Your task to perform on an android device: turn notification dots on Image 0: 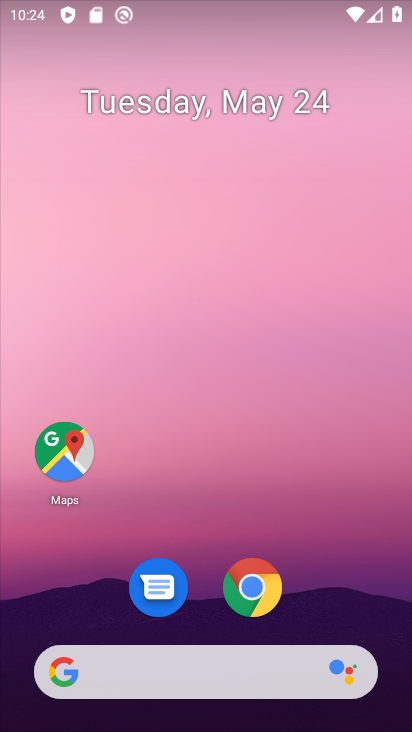
Step 0: drag from (325, 597) to (235, 0)
Your task to perform on an android device: turn notification dots on Image 1: 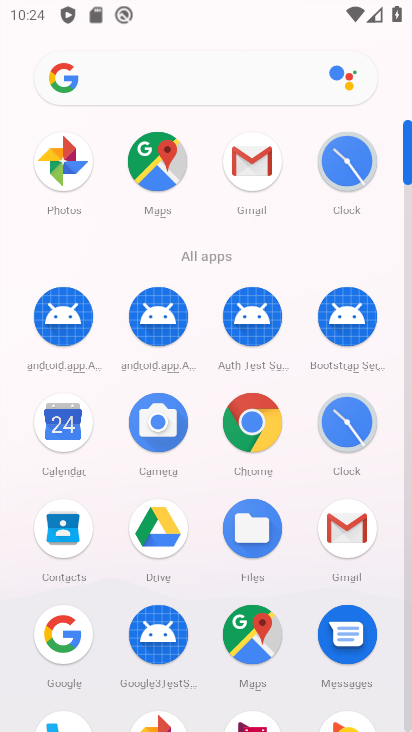
Step 1: drag from (7, 532) to (30, 222)
Your task to perform on an android device: turn notification dots on Image 2: 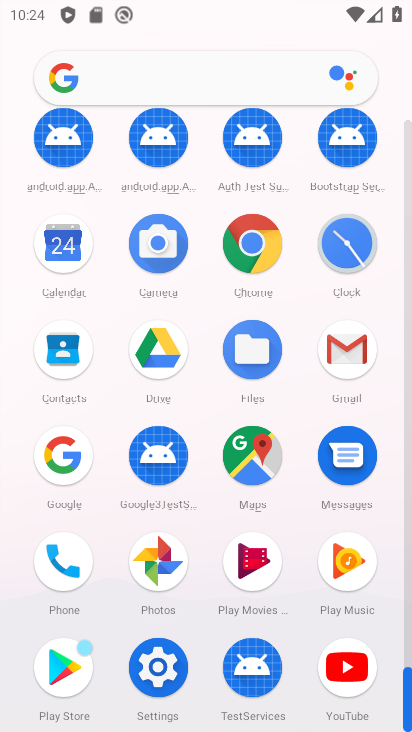
Step 2: click (158, 670)
Your task to perform on an android device: turn notification dots on Image 3: 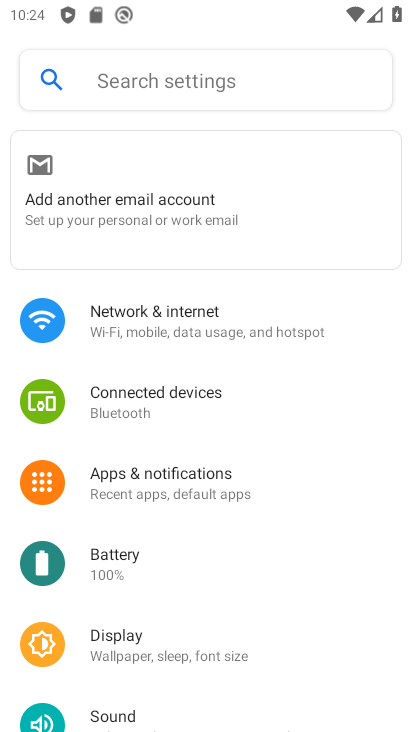
Step 3: click (206, 478)
Your task to perform on an android device: turn notification dots on Image 4: 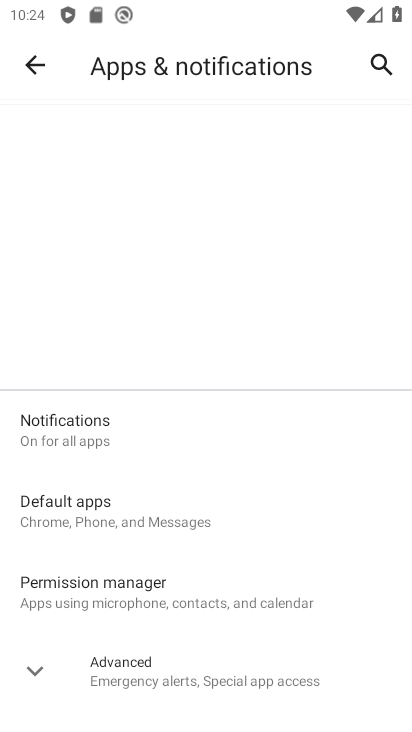
Step 4: click (131, 453)
Your task to perform on an android device: turn notification dots on Image 5: 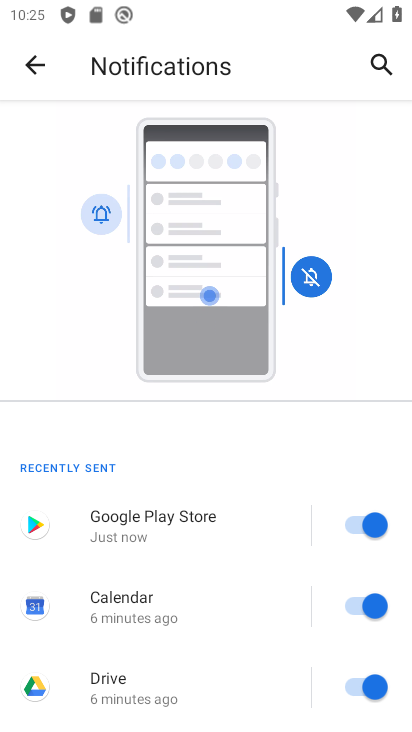
Step 5: drag from (215, 662) to (221, 88)
Your task to perform on an android device: turn notification dots on Image 6: 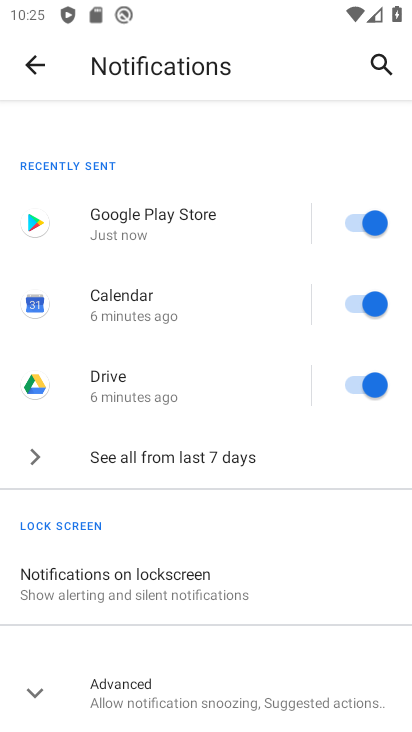
Step 6: click (107, 711)
Your task to perform on an android device: turn notification dots on Image 7: 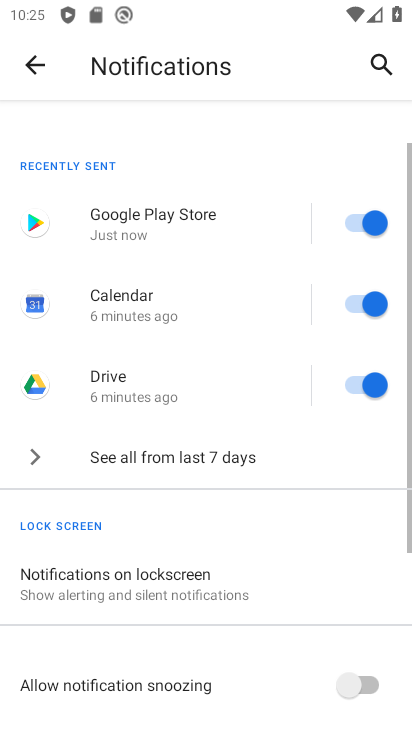
Step 7: task complete